Your task to perform on an android device: Go to Google maps Image 0: 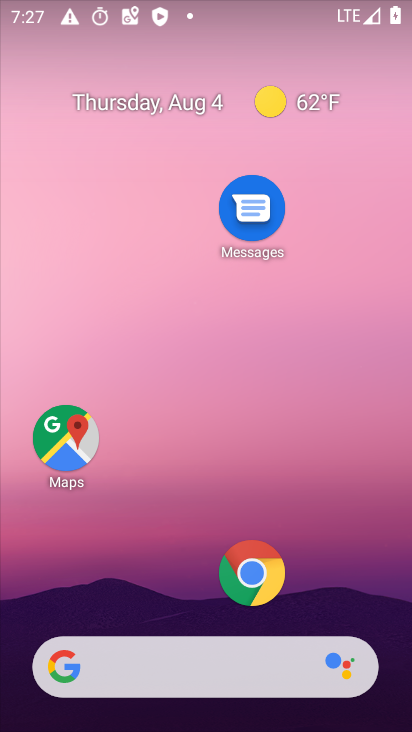
Step 0: press home button
Your task to perform on an android device: Go to Google maps Image 1: 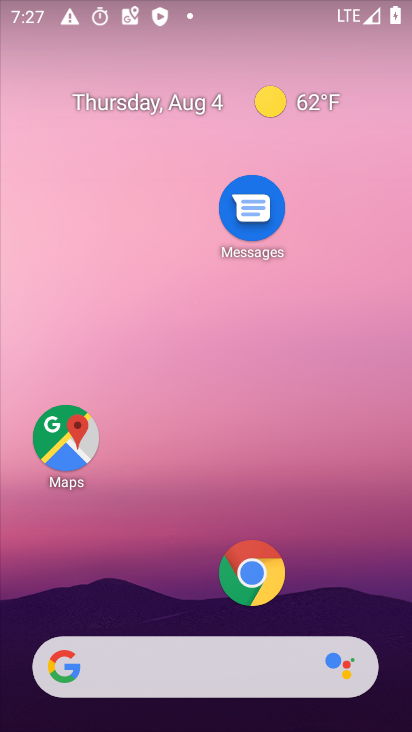
Step 1: click (73, 446)
Your task to perform on an android device: Go to Google maps Image 2: 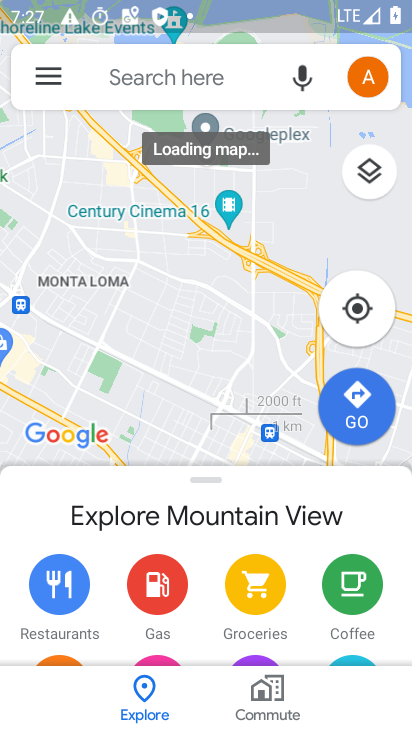
Step 2: task complete